Your task to perform on an android device: Show me the alarms in the clock app Image 0: 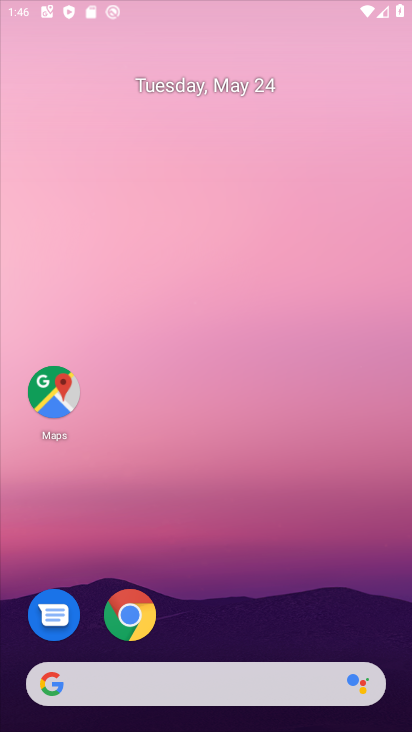
Step 0: press home button
Your task to perform on an android device: Show me the alarms in the clock app Image 1: 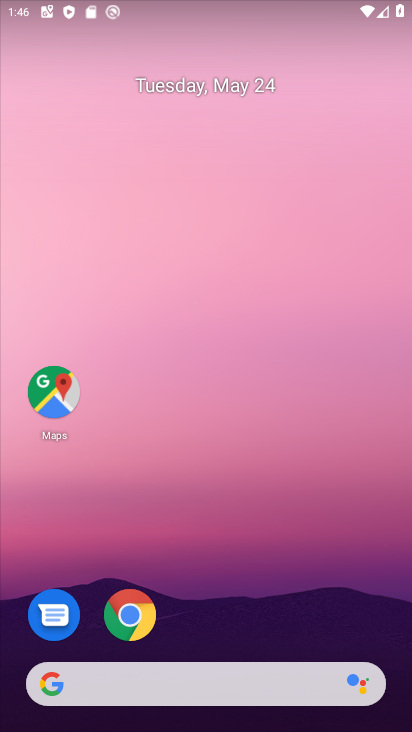
Step 1: drag from (207, 633) to (169, 141)
Your task to perform on an android device: Show me the alarms in the clock app Image 2: 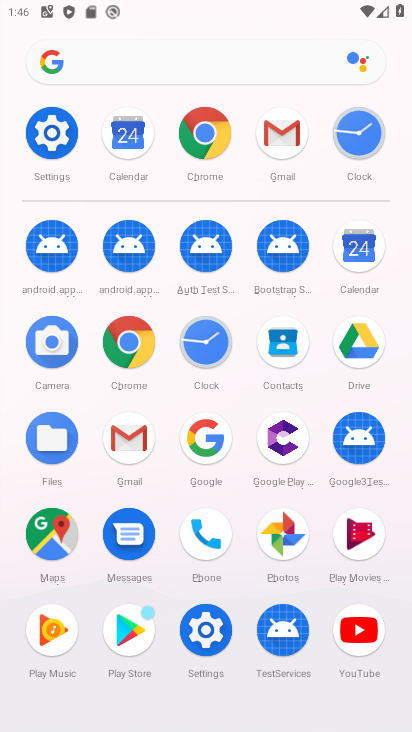
Step 2: click (209, 337)
Your task to perform on an android device: Show me the alarms in the clock app Image 3: 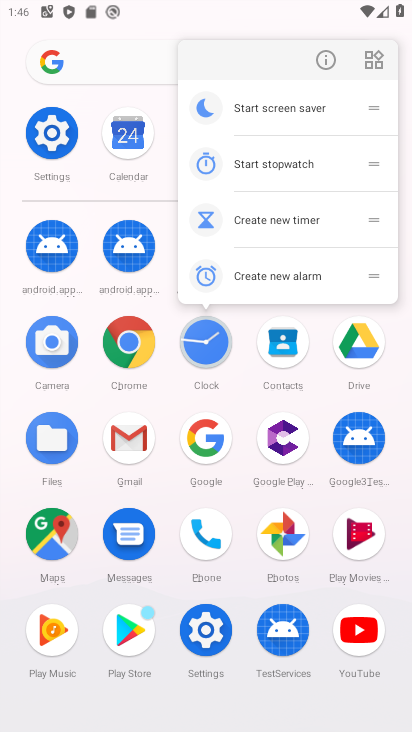
Step 3: click (199, 334)
Your task to perform on an android device: Show me the alarms in the clock app Image 4: 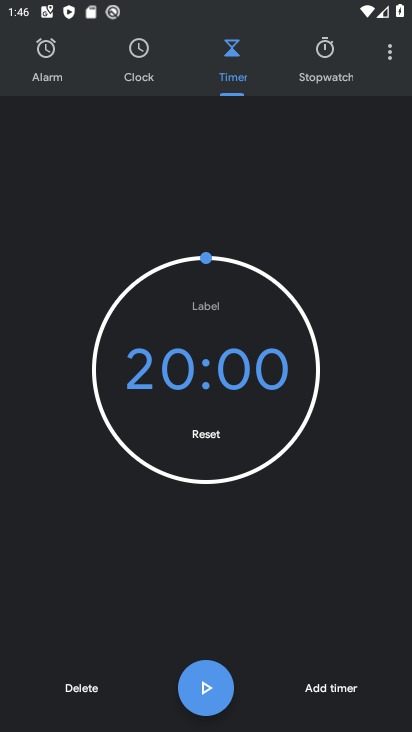
Step 4: click (44, 60)
Your task to perform on an android device: Show me the alarms in the clock app Image 5: 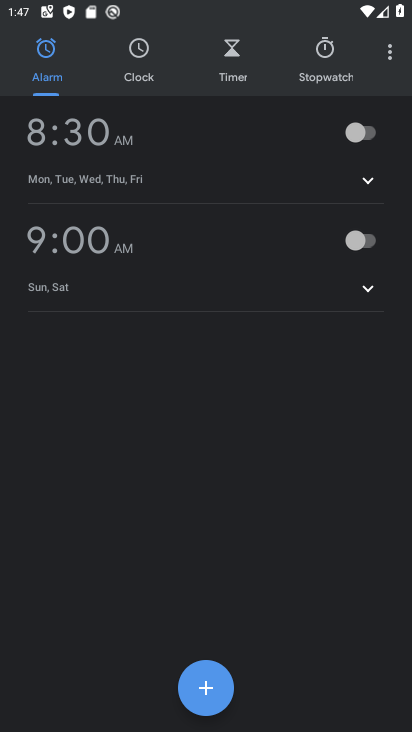
Step 5: task complete